Your task to perform on an android device: What's the weather today? Image 0: 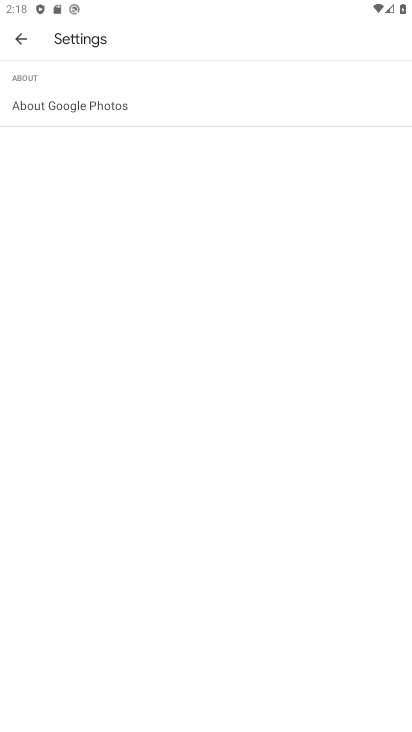
Step 0: press home button
Your task to perform on an android device: What's the weather today? Image 1: 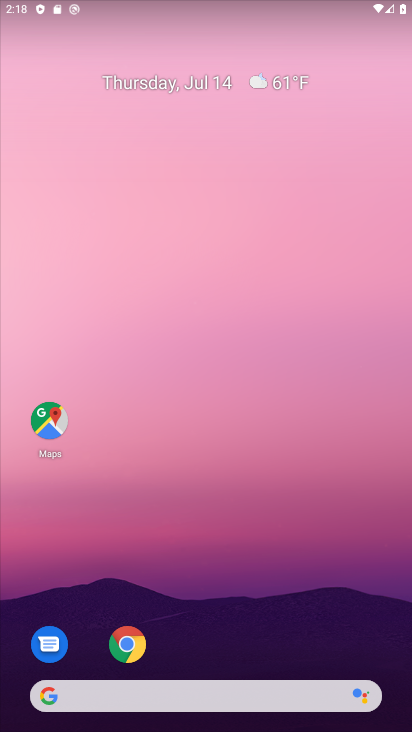
Step 1: click (278, 78)
Your task to perform on an android device: What's the weather today? Image 2: 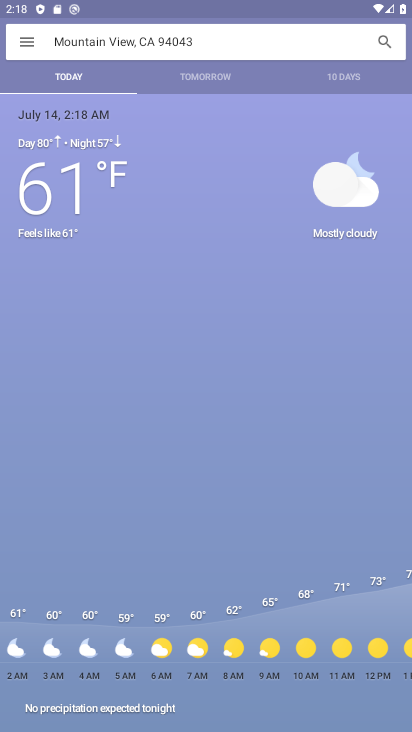
Step 2: task complete